Your task to perform on an android device: check storage Image 0: 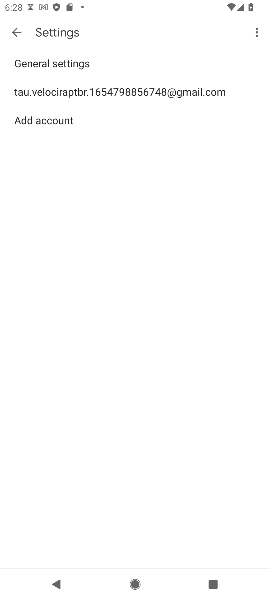
Step 0: press home button
Your task to perform on an android device: check storage Image 1: 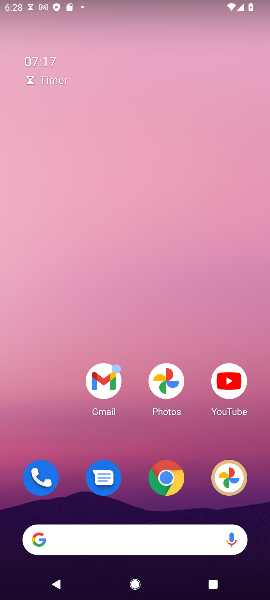
Step 1: drag from (153, 505) to (150, 118)
Your task to perform on an android device: check storage Image 2: 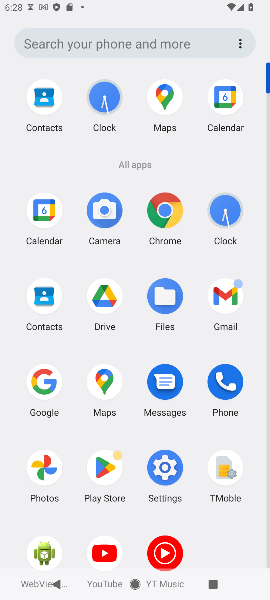
Step 2: click (162, 469)
Your task to perform on an android device: check storage Image 3: 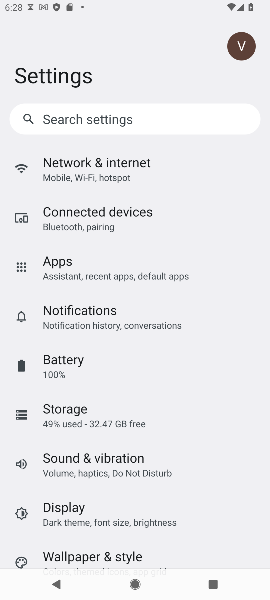
Step 3: click (95, 420)
Your task to perform on an android device: check storage Image 4: 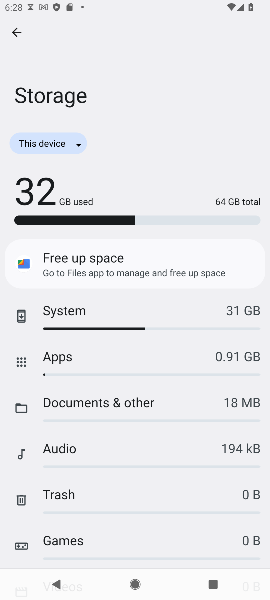
Step 4: task complete